Your task to perform on an android device: Open the calendar app, open the side menu, and click the "Day" option Image 0: 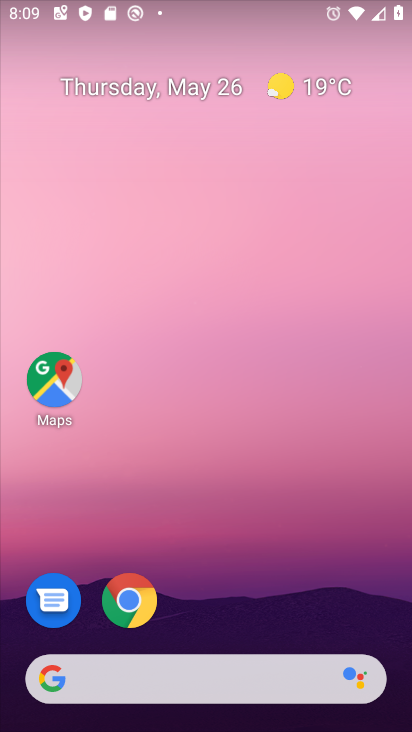
Step 0: press home button
Your task to perform on an android device: Open the calendar app, open the side menu, and click the "Day" option Image 1: 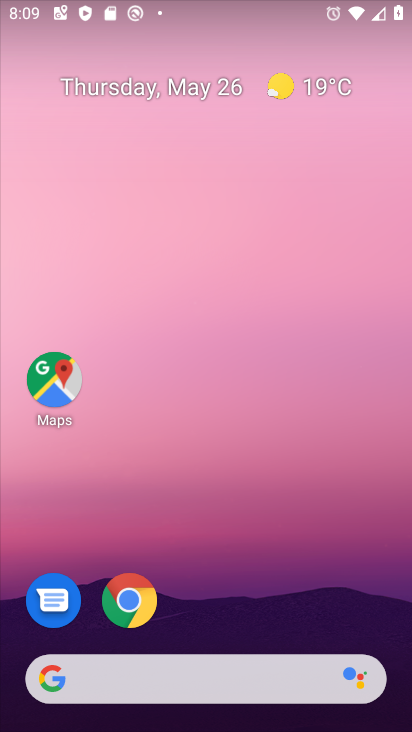
Step 1: drag from (296, 628) to (233, 225)
Your task to perform on an android device: Open the calendar app, open the side menu, and click the "Day" option Image 2: 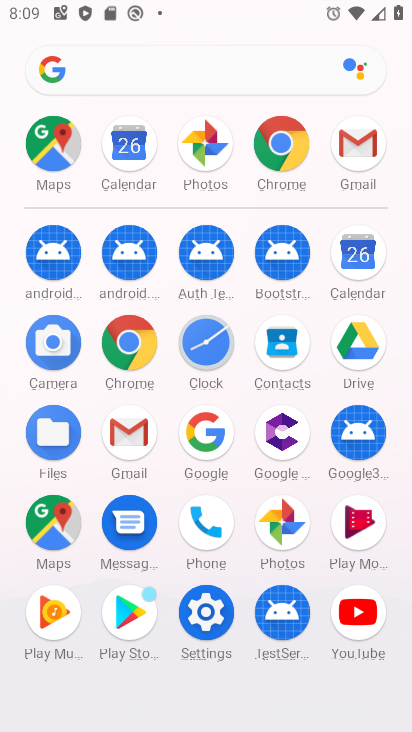
Step 2: click (359, 266)
Your task to perform on an android device: Open the calendar app, open the side menu, and click the "Day" option Image 3: 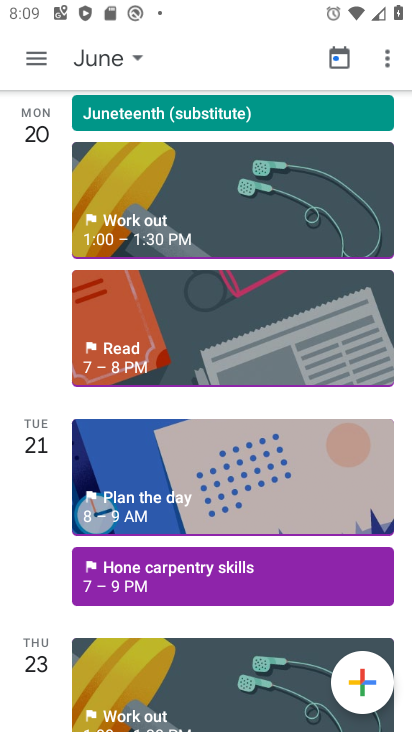
Step 3: click (25, 57)
Your task to perform on an android device: Open the calendar app, open the side menu, and click the "Day" option Image 4: 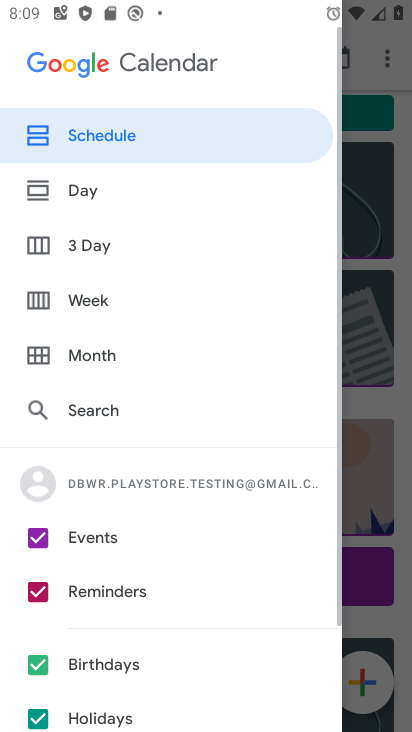
Step 4: click (95, 191)
Your task to perform on an android device: Open the calendar app, open the side menu, and click the "Day" option Image 5: 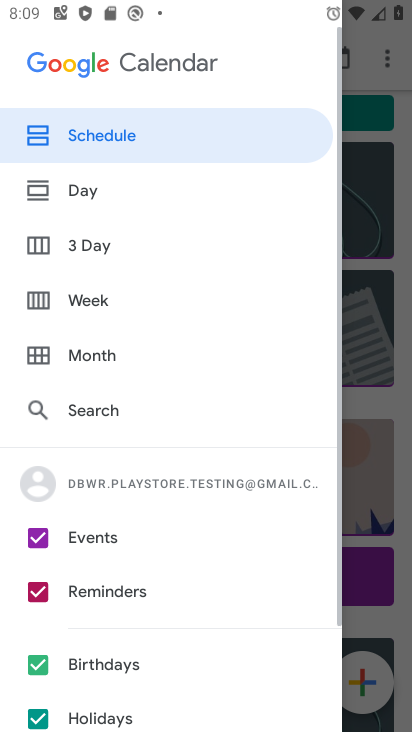
Step 5: click (90, 198)
Your task to perform on an android device: Open the calendar app, open the side menu, and click the "Day" option Image 6: 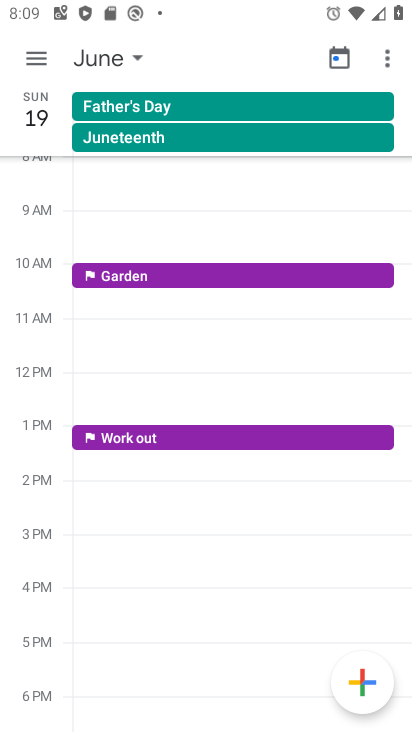
Step 6: task complete